Your task to perform on an android device: Open privacy settings Image 0: 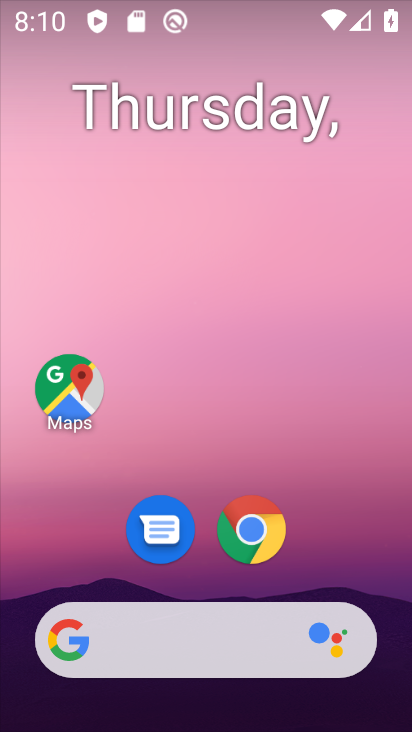
Step 0: press home button
Your task to perform on an android device: Open privacy settings Image 1: 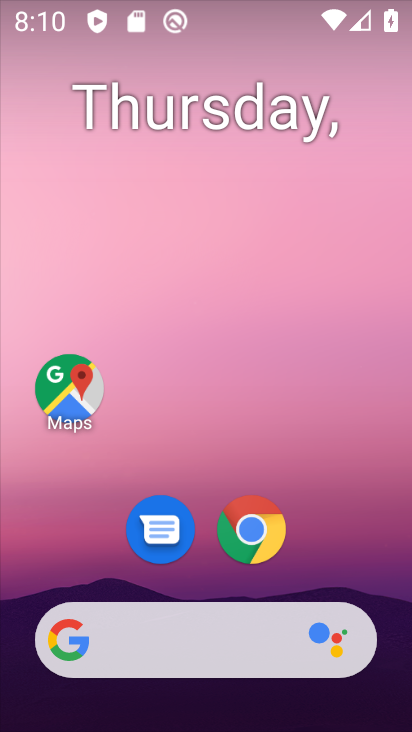
Step 1: drag from (181, 642) to (330, 137)
Your task to perform on an android device: Open privacy settings Image 2: 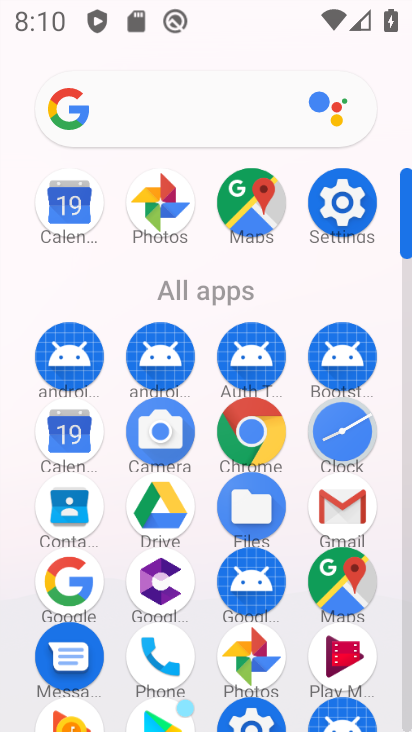
Step 2: click (344, 217)
Your task to perform on an android device: Open privacy settings Image 3: 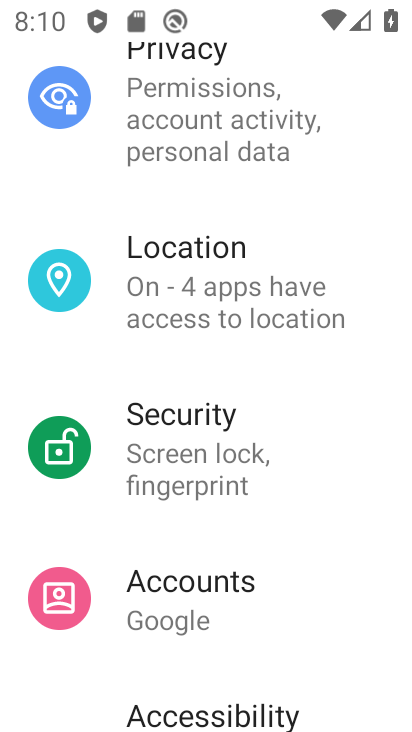
Step 3: click (196, 54)
Your task to perform on an android device: Open privacy settings Image 4: 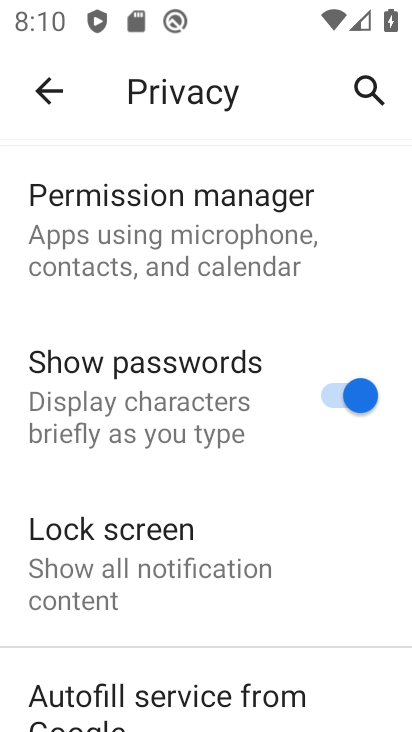
Step 4: task complete